Your task to perform on an android device: Go to battery settings Image 0: 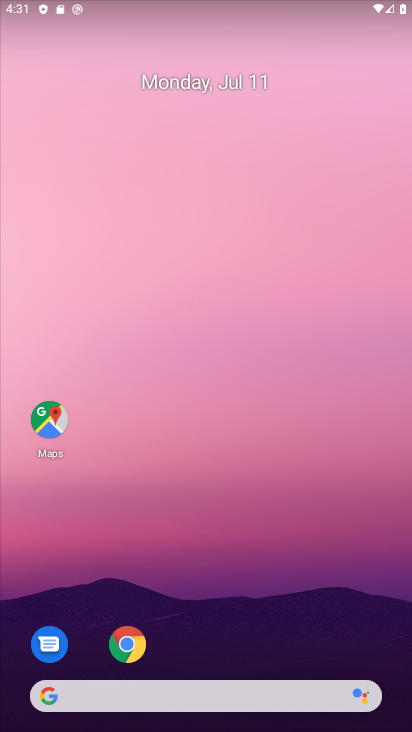
Step 0: drag from (321, 557) to (351, 153)
Your task to perform on an android device: Go to battery settings Image 1: 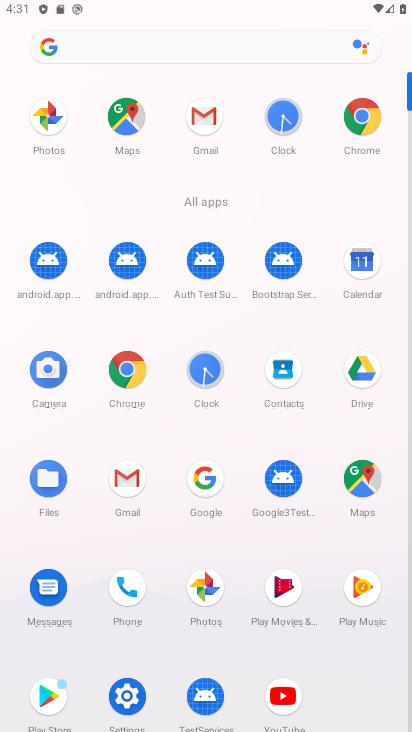
Step 1: click (105, 690)
Your task to perform on an android device: Go to battery settings Image 2: 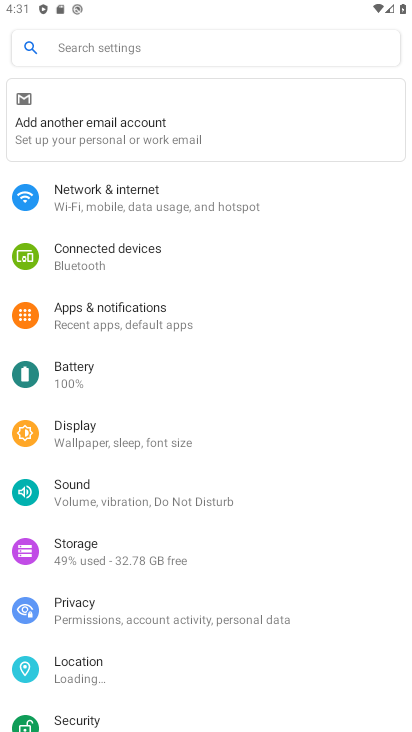
Step 2: click (90, 376)
Your task to perform on an android device: Go to battery settings Image 3: 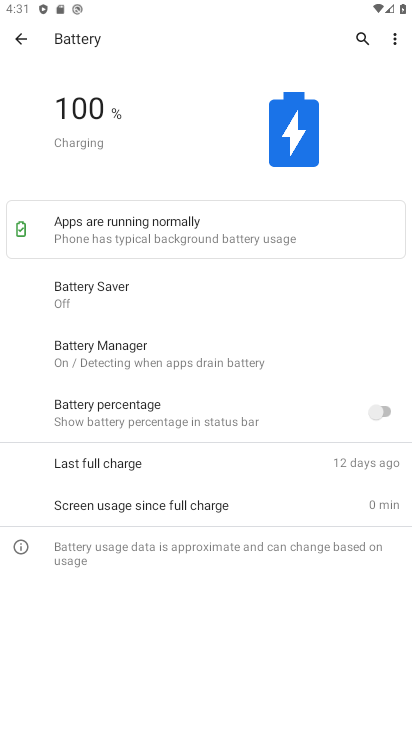
Step 3: task complete